Your task to perform on an android device: turn on the 12-hour format for clock Image 0: 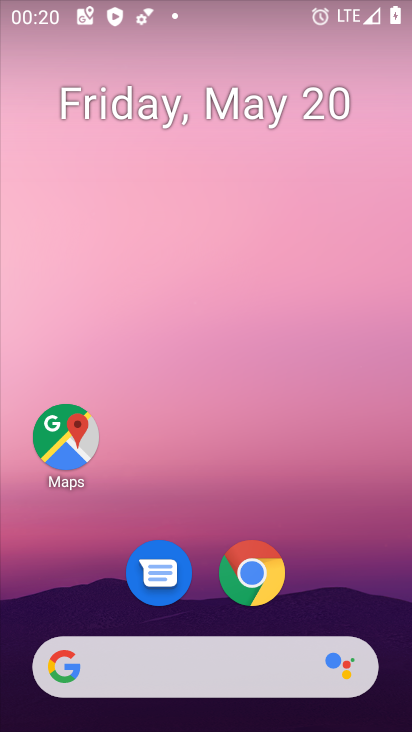
Step 0: drag from (210, 586) to (213, 153)
Your task to perform on an android device: turn on the 12-hour format for clock Image 1: 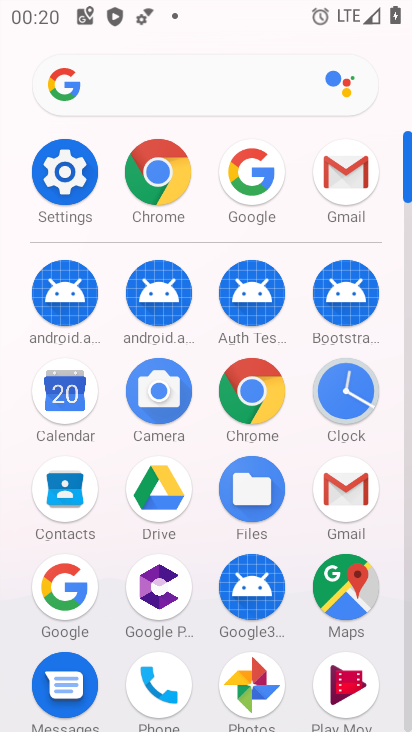
Step 1: click (322, 376)
Your task to perform on an android device: turn on the 12-hour format for clock Image 2: 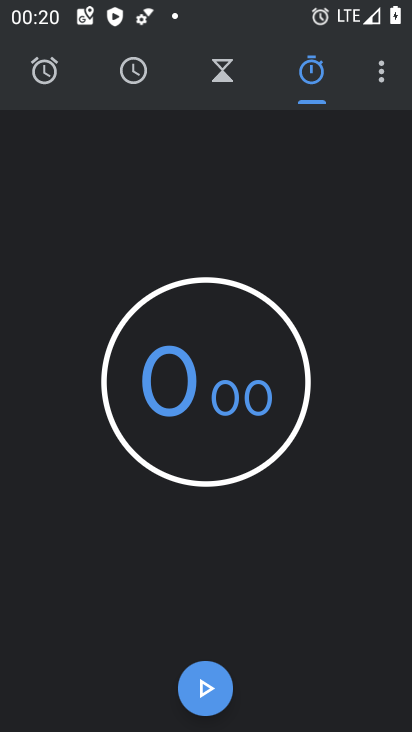
Step 2: click (383, 65)
Your task to perform on an android device: turn on the 12-hour format for clock Image 3: 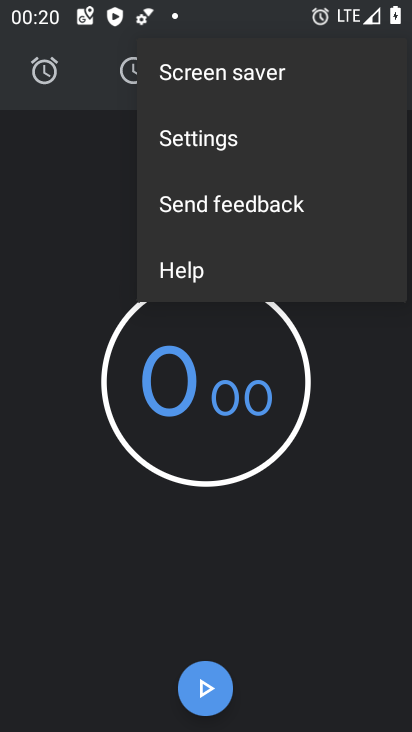
Step 3: click (222, 149)
Your task to perform on an android device: turn on the 12-hour format for clock Image 4: 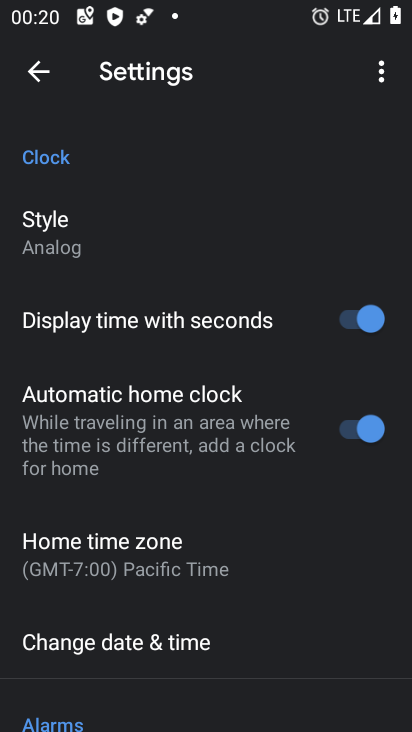
Step 4: click (180, 624)
Your task to perform on an android device: turn on the 12-hour format for clock Image 5: 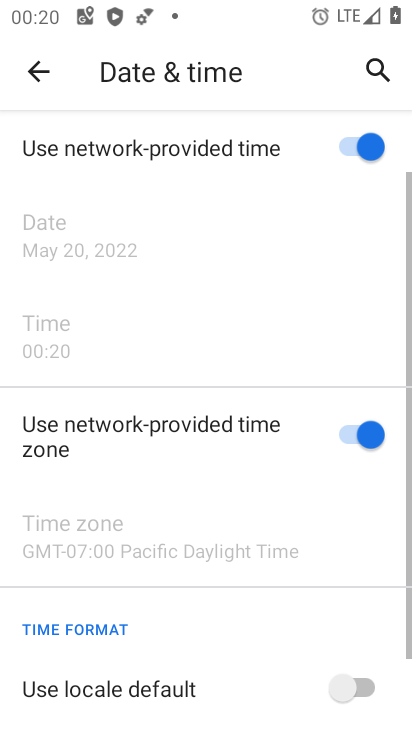
Step 5: drag from (256, 588) to (277, 159)
Your task to perform on an android device: turn on the 12-hour format for clock Image 6: 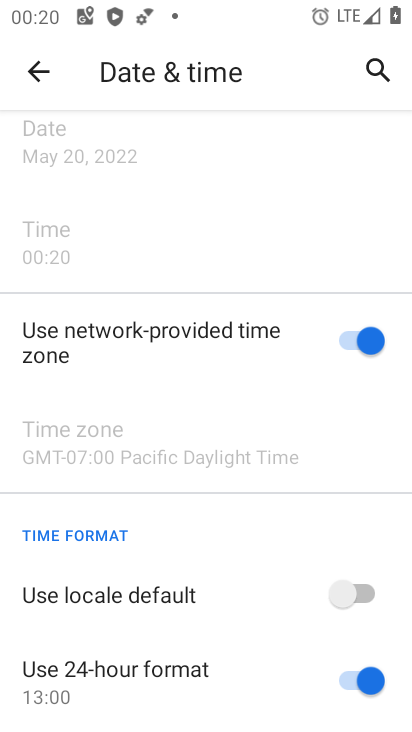
Step 6: click (357, 585)
Your task to perform on an android device: turn on the 12-hour format for clock Image 7: 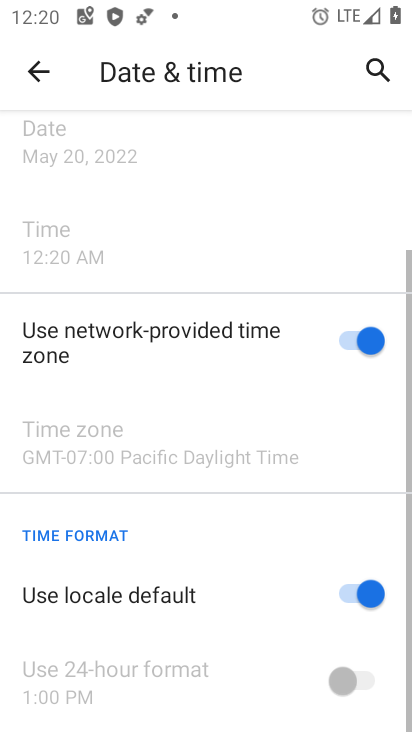
Step 7: task complete